Your task to perform on an android device: find photos in the google photos app Image 0: 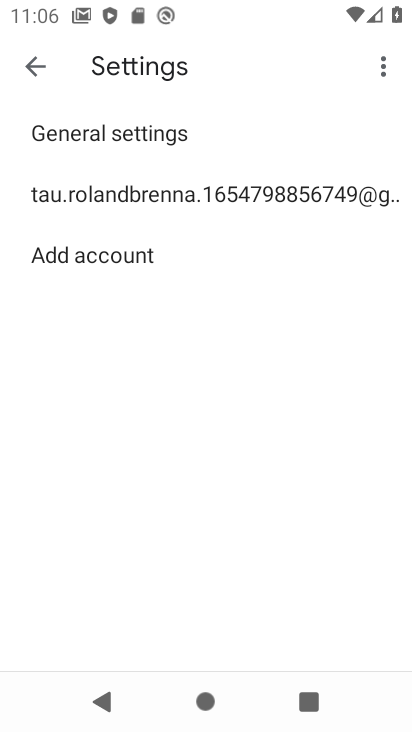
Step 0: press home button
Your task to perform on an android device: find photos in the google photos app Image 1: 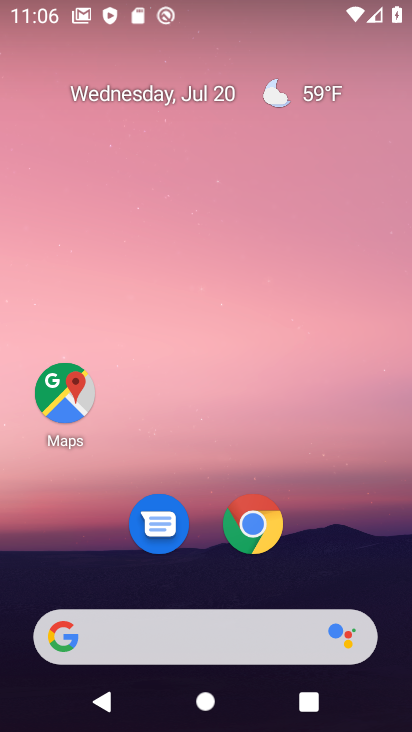
Step 1: drag from (276, 336) to (383, 68)
Your task to perform on an android device: find photos in the google photos app Image 2: 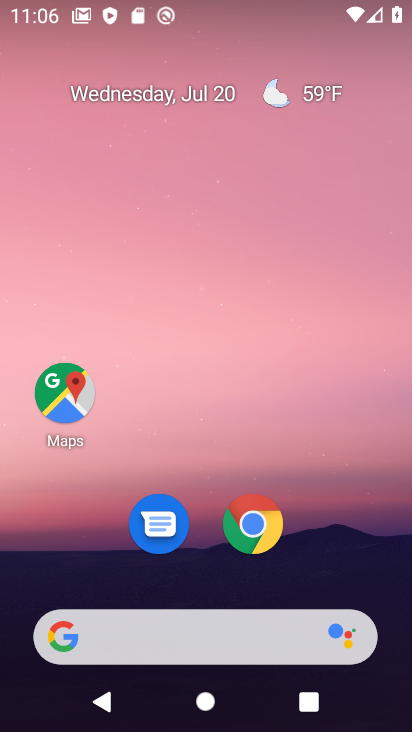
Step 2: drag from (224, 633) to (344, 16)
Your task to perform on an android device: find photos in the google photos app Image 3: 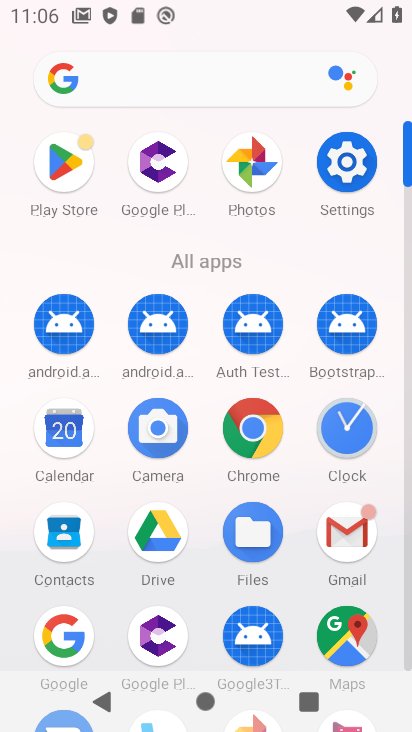
Step 3: click (256, 159)
Your task to perform on an android device: find photos in the google photos app Image 4: 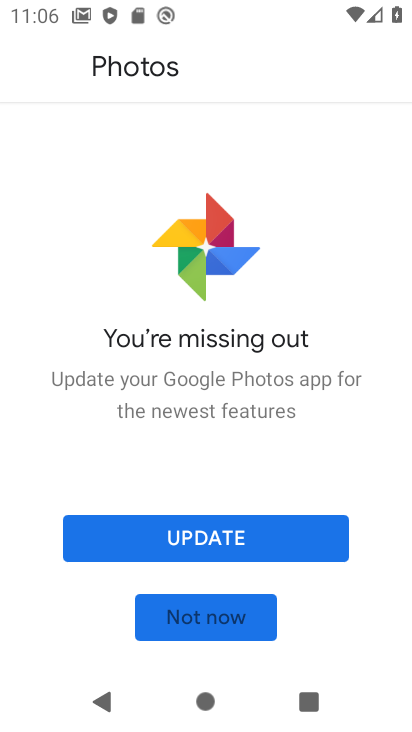
Step 4: click (172, 624)
Your task to perform on an android device: find photos in the google photos app Image 5: 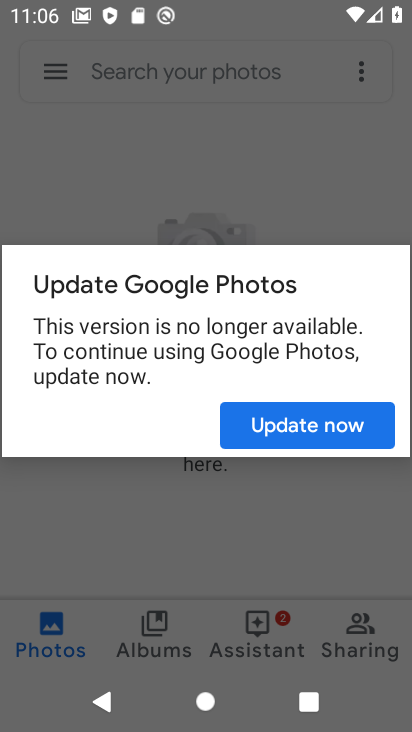
Step 5: click (345, 422)
Your task to perform on an android device: find photos in the google photos app Image 6: 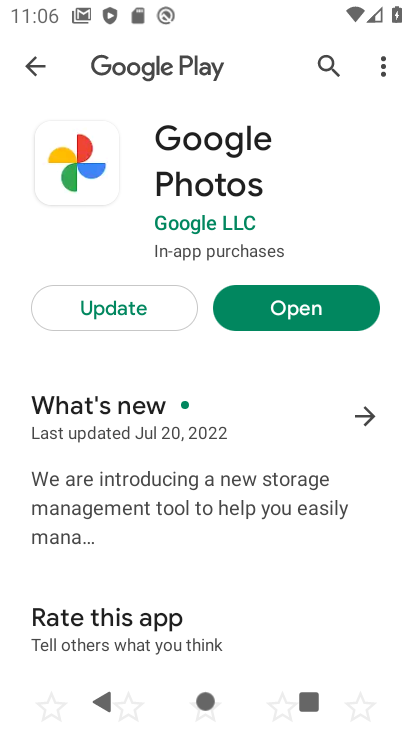
Step 6: click (305, 312)
Your task to perform on an android device: find photos in the google photos app Image 7: 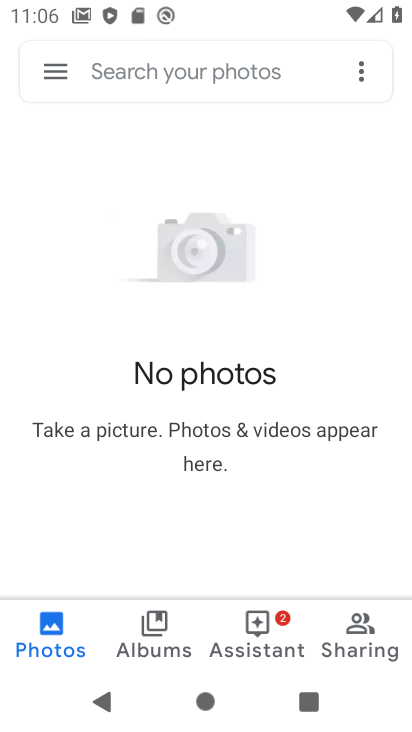
Step 7: task complete